Your task to perform on an android device: Go to network settings Image 0: 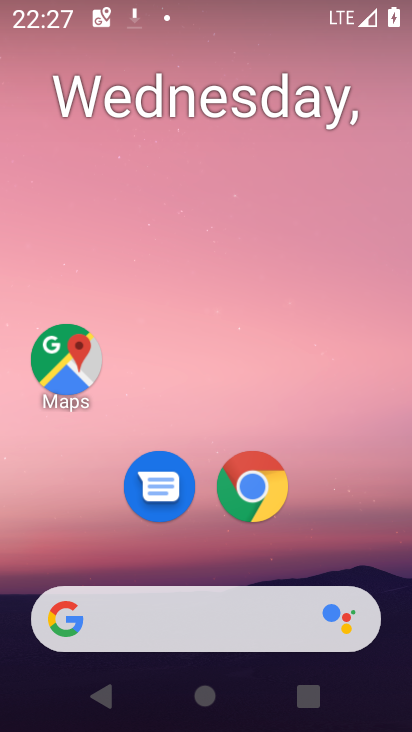
Step 0: drag from (187, 581) to (245, 8)
Your task to perform on an android device: Go to network settings Image 1: 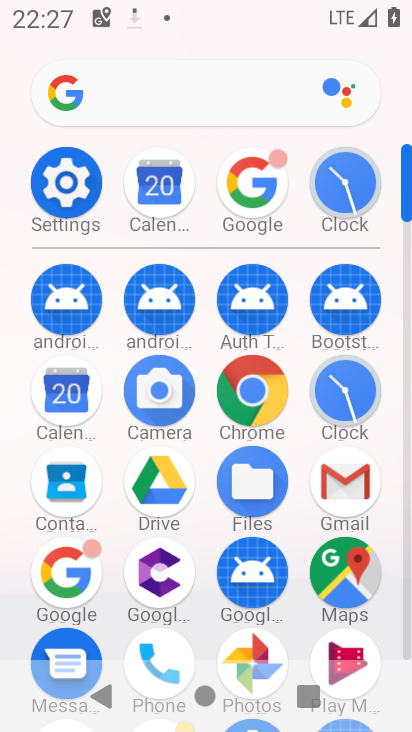
Step 1: click (53, 182)
Your task to perform on an android device: Go to network settings Image 2: 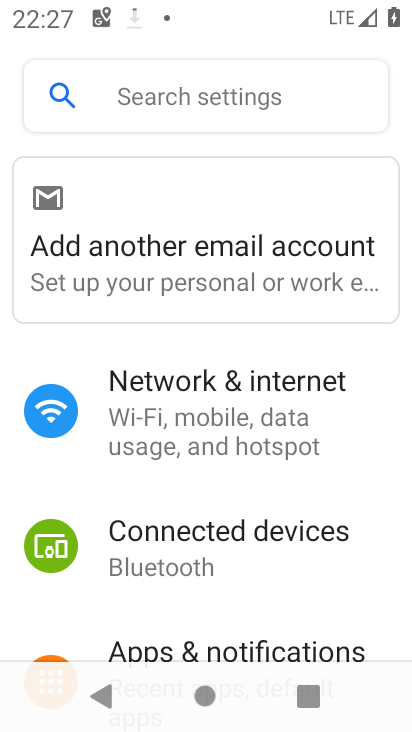
Step 2: click (188, 410)
Your task to perform on an android device: Go to network settings Image 3: 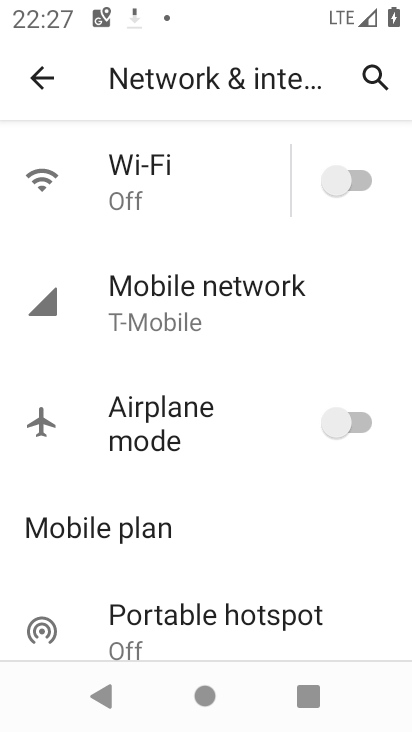
Step 3: task complete